Your task to perform on an android device: check the backup settings in the google photos Image 0: 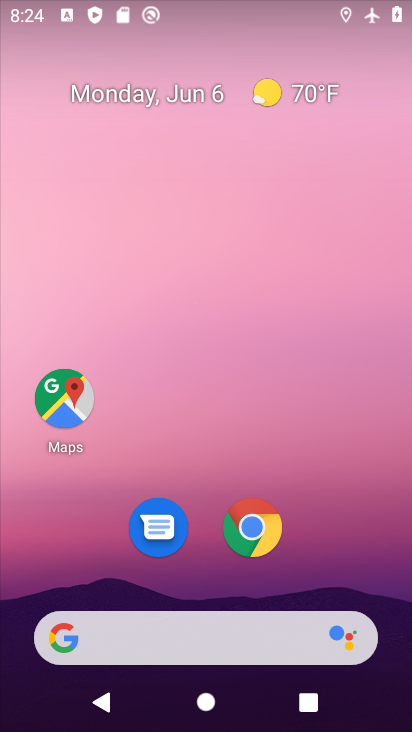
Step 0: click (215, 147)
Your task to perform on an android device: check the backup settings in the google photos Image 1: 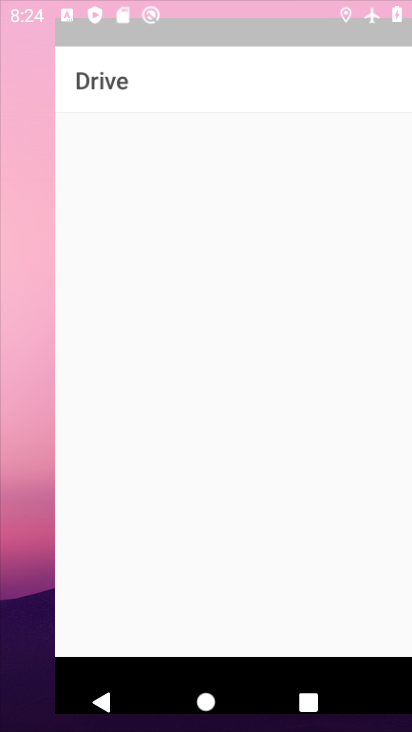
Step 1: press home button
Your task to perform on an android device: check the backup settings in the google photos Image 2: 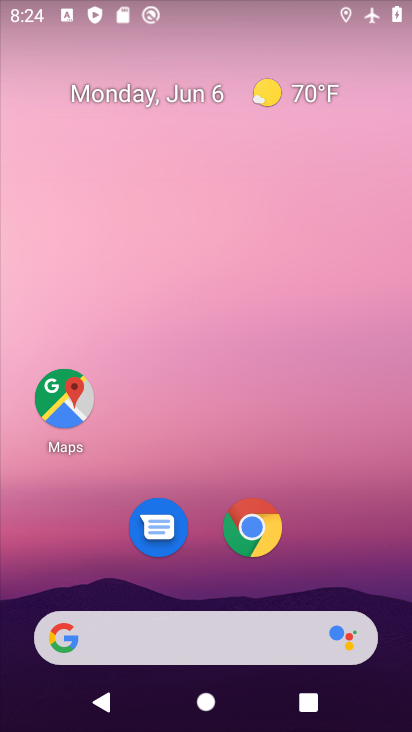
Step 2: drag from (214, 626) to (256, 153)
Your task to perform on an android device: check the backup settings in the google photos Image 3: 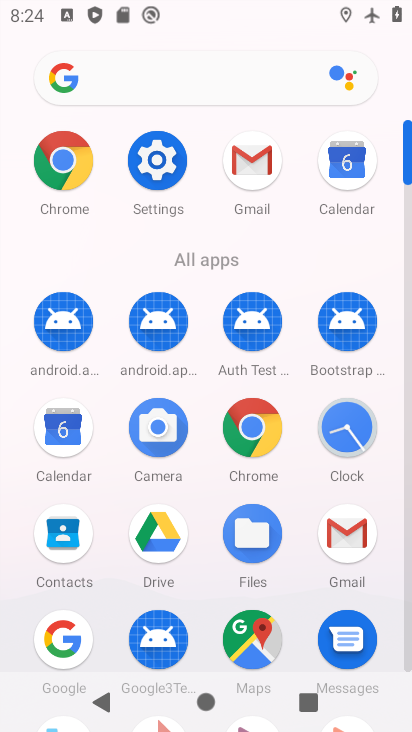
Step 3: drag from (213, 515) to (262, 184)
Your task to perform on an android device: check the backup settings in the google photos Image 4: 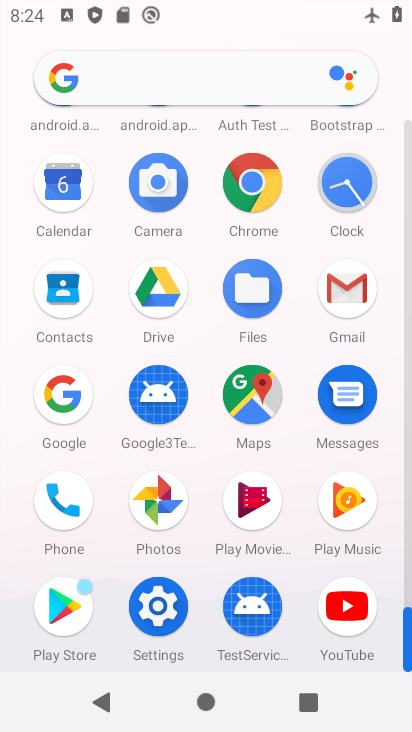
Step 4: click (150, 516)
Your task to perform on an android device: check the backup settings in the google photos Image 5: 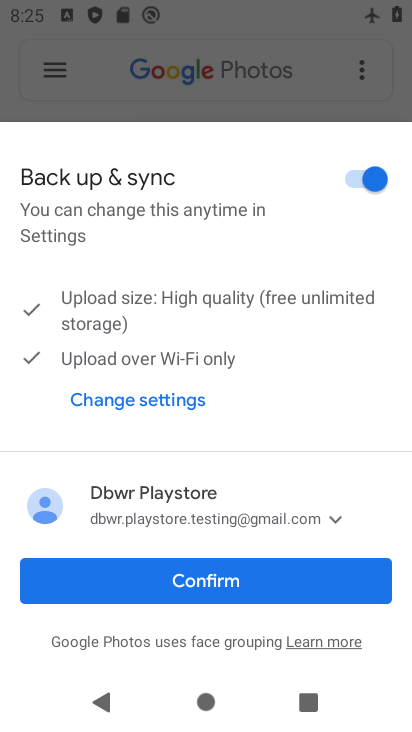
Step 5: click (294, 580)
Your task to perform on an android device: check the backup settings in the google photos Image 6: 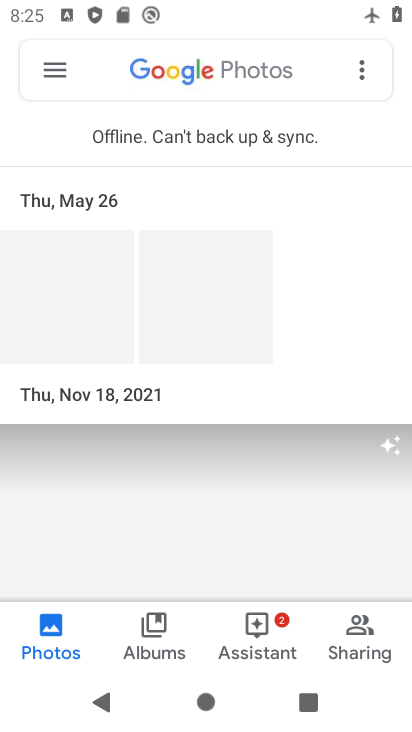
Step 6: click (59, 79)
Your task to perform on an android device: check the backup settings in the google photos Image 7: 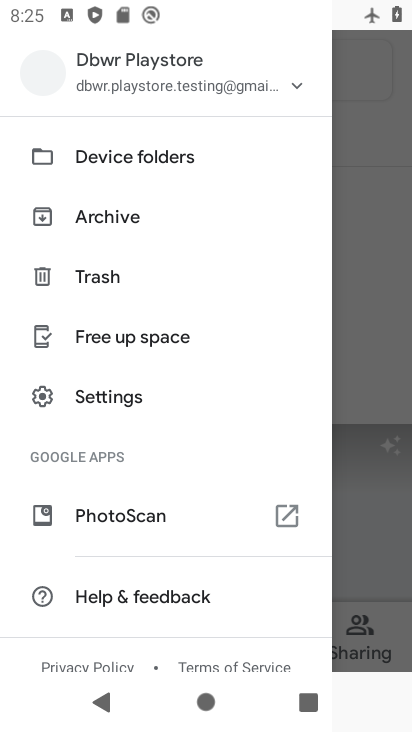
Step 7: click (144, 393)
Your task to perform on an android device: check the backup settings in the google photos Image 8: 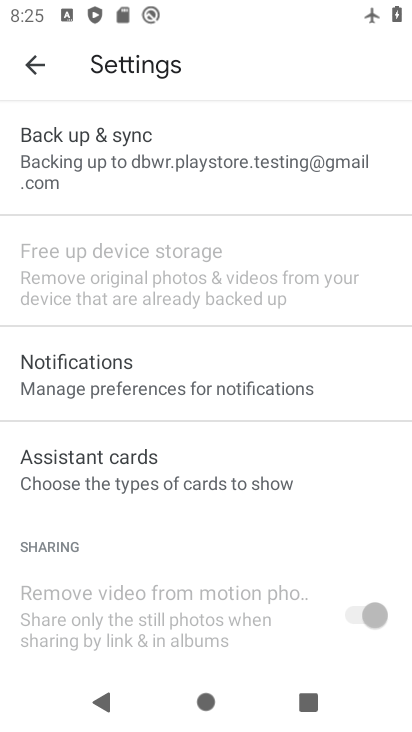
Step 8: click (186, 144)
Your task to perform on an android device: check the backup settings in the google photos Image 9: 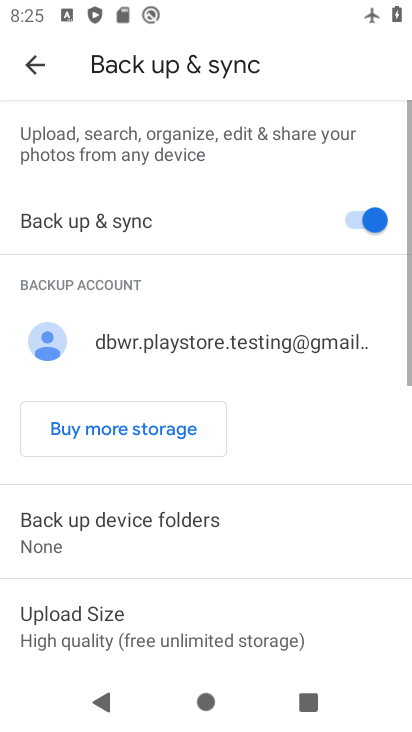
Step 9: task complete